Your task to perform on an android device: Check the weather Image 0: 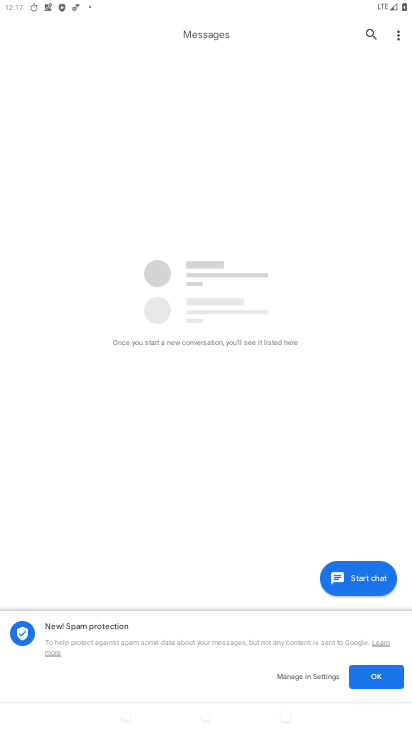
Step 0: press home button
Your task to perform on an android device: Check the weather Image 1: 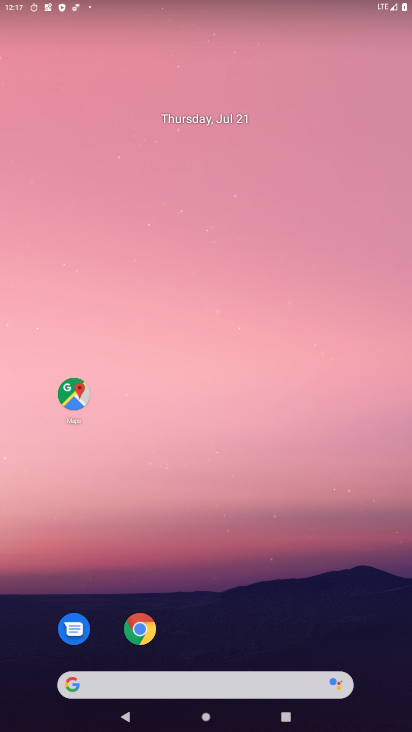
Step 1: drag from (303, 680) to (312, 11)
Your task to perform on an android device: Check the weather Image 2: 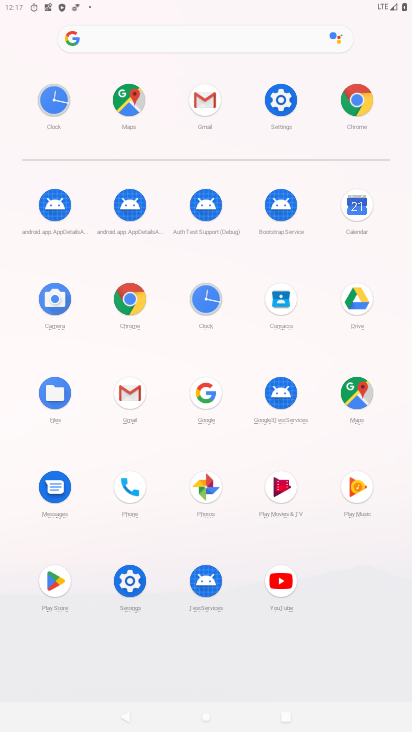
Step 2: click (129, 290)
Your task to perform on an android device: Check the weather Image 3: 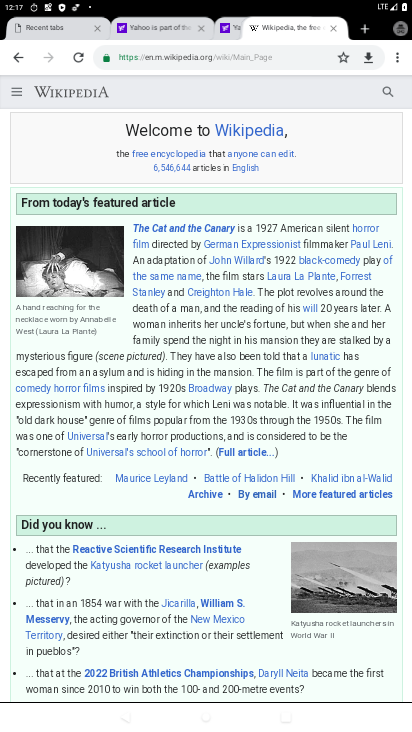
Step 3: click (160, 53)
Your task to perform on an android device: Check the weather Image 4: 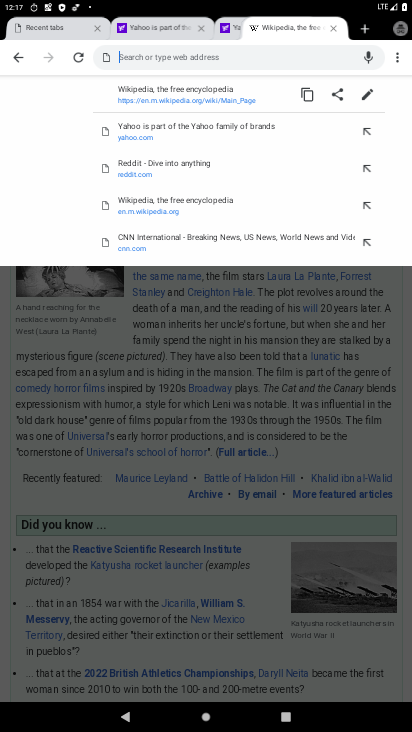
Step 4: type "check the weather"
Your task to perform on an android device: Check the weather Image 5: 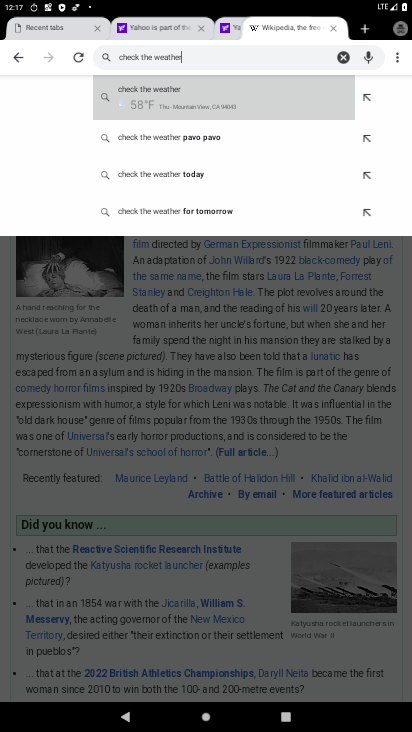
Step 5: click (251, 89)
Your task to perform on an android device: Check the weather Image 6: 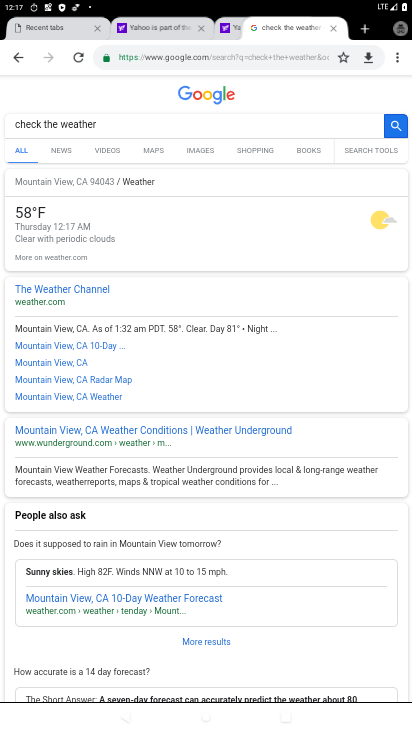
Step 6: task complete